Your task to perform on an android device: What is the recent news? Image 0: 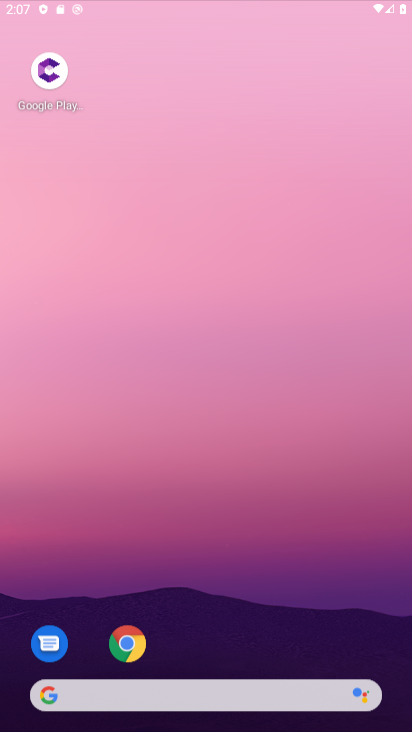
Step 0: drag from (248, 651) to (165, 11)
Your task to perform on an android device: What is the recent news? Image 1: 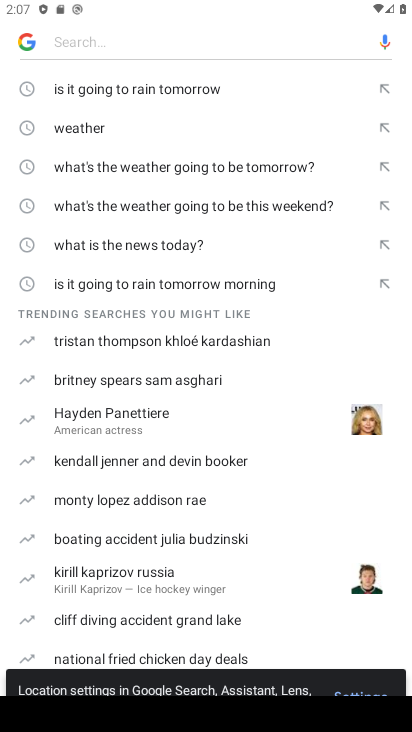
Step 1: press home button
Your task to perform on an android device: What is the recent news? Image 2: 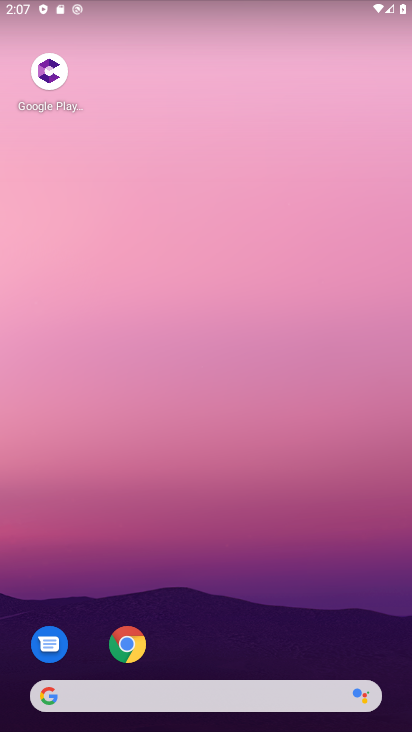
Step 2: click (130, 649)
Your task to perform on an android device: What is the recent news? Image 3: 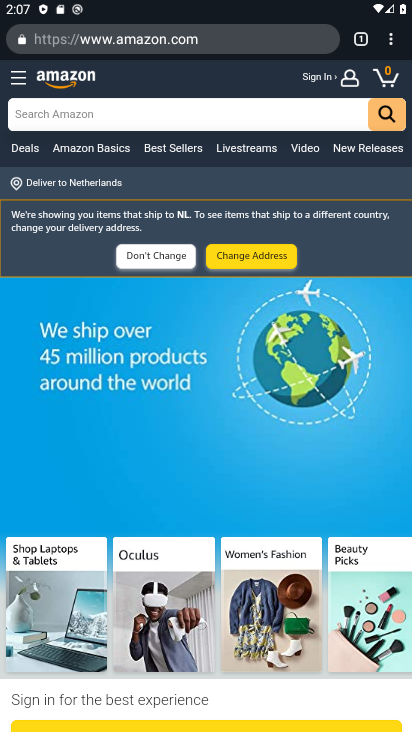
Step 3: click (217, 39)
Your task to perform on an android device: What is the recent news? Image 4: 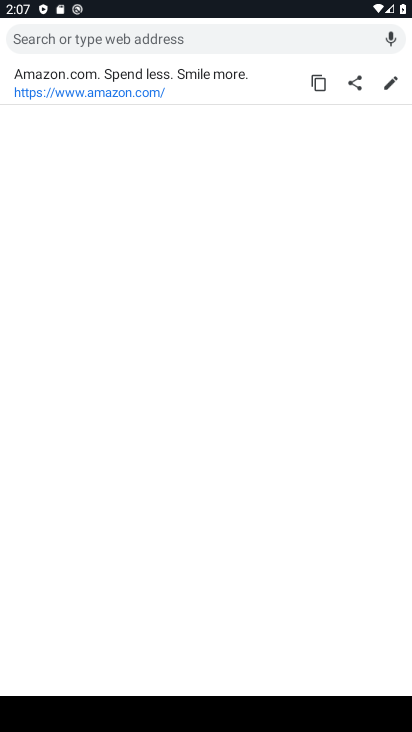
Step 4: type "What is the recent news?"
Your task to perform on an android device: What is the recent news? Image 5: 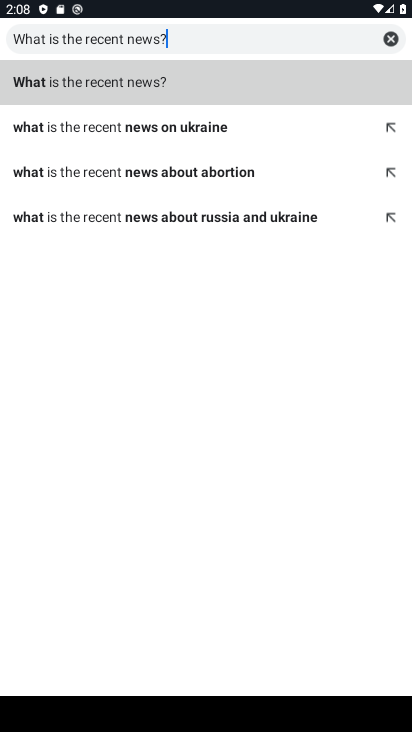
Step 5: click (156, 83)
Your task to perform on an android device: What is the recent news? Image 6: 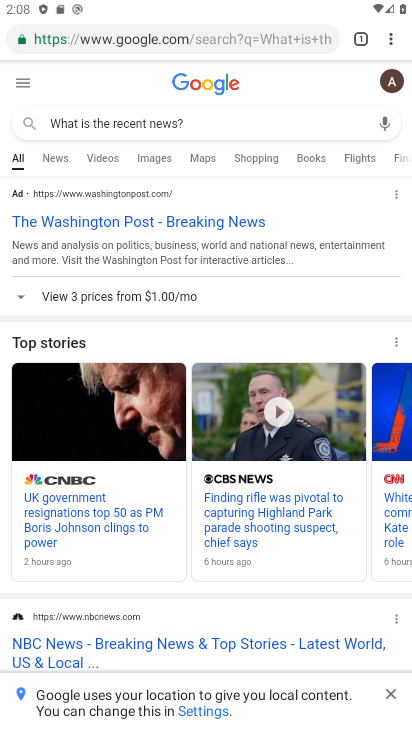
Step 6: task complete